Your task to perform on an android device: What's on my calendar tomorrow? Image 0: 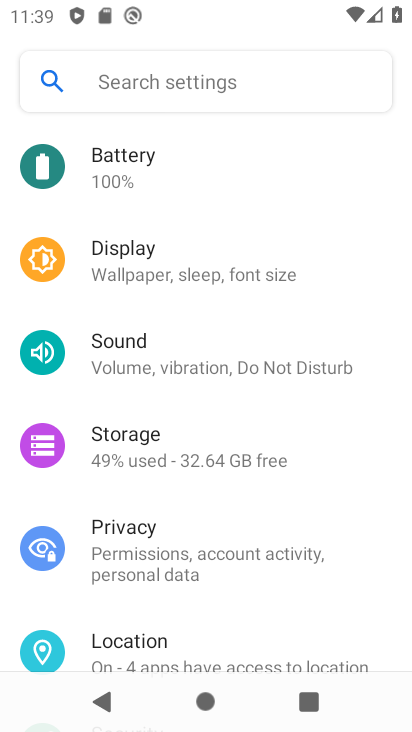
Step 0: press home button
Your task to perform on an android device: What's on my calendar tomorrow? Image 1: 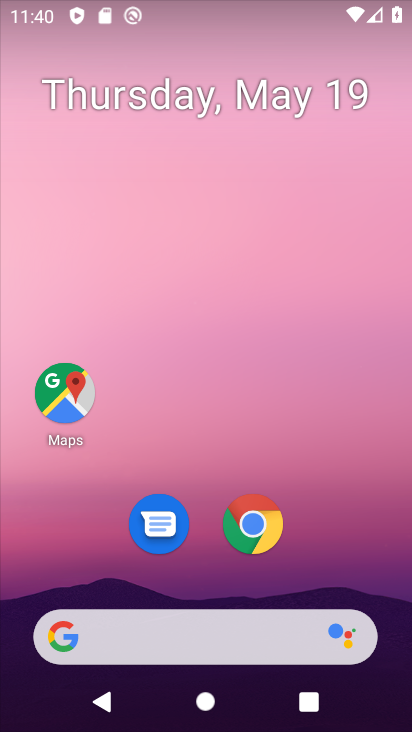
Step 1: click (201, 647)
Your task to perform on an android device: What's on my calendar tomorrow? Image 2: 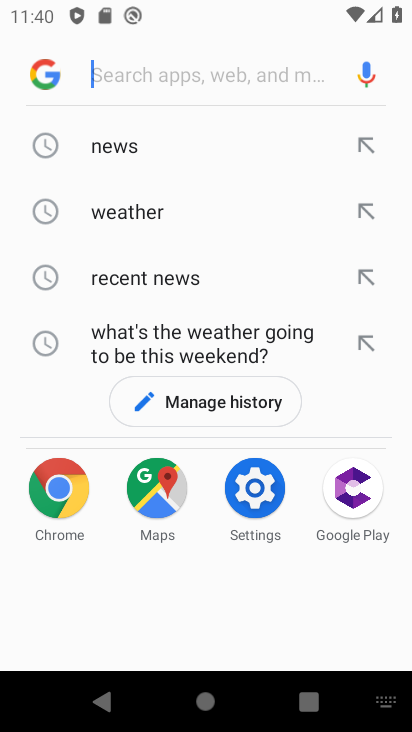
Step 2: press home button
Your task to perform on an android device: What's on my calendar tomorrow? Image 3: 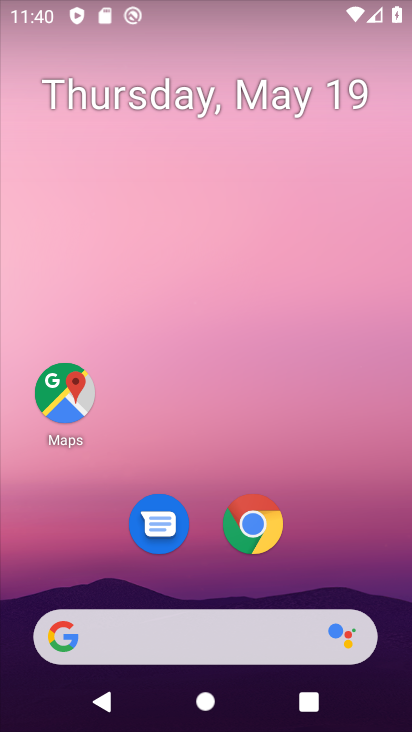
Step 3: drag from (229, 445) to (174, 48)
Your task to perform on an android device: What's on my calendar tomorrow? Image 4: 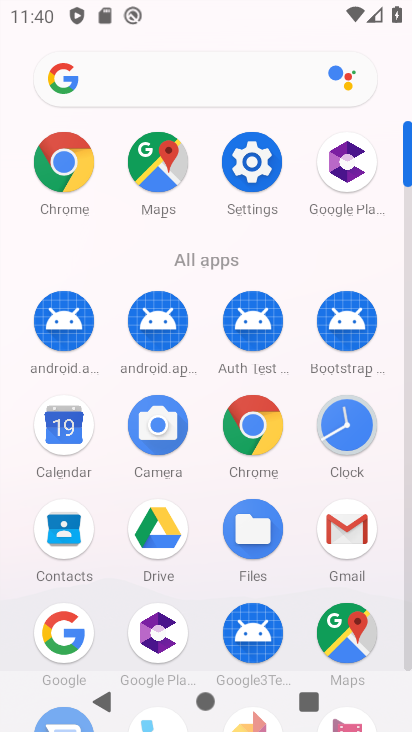
Step 4: click (64, 419)
Your task to perform on an android device: What's on my calendar tomorrow? Image 5: 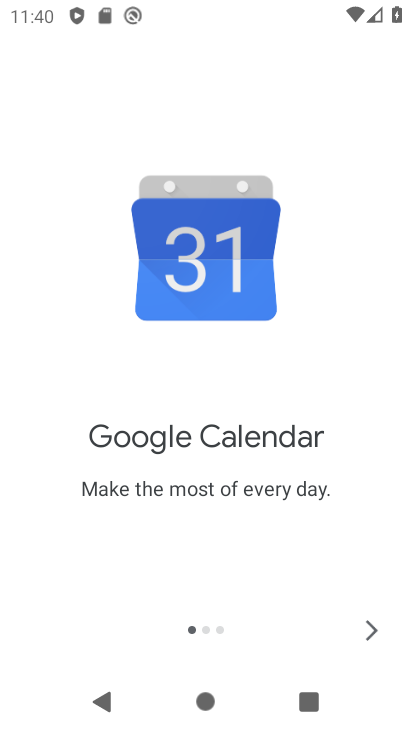
Step 5: click (369, 621)
Your task to perform on an android device: What's on my calendar tomorrow? Image 6: 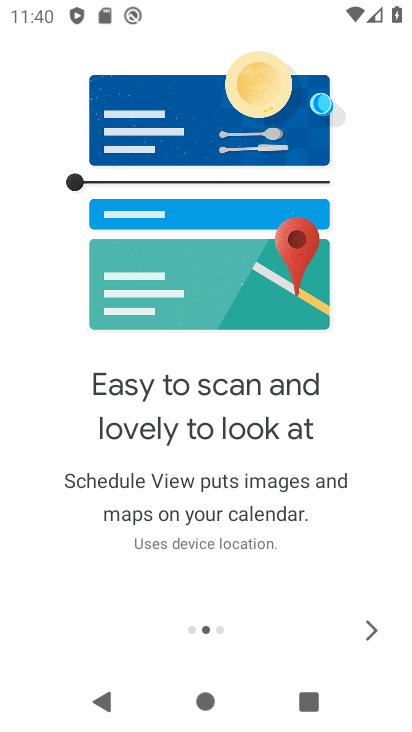
Step 6: click (369, 626)
Your task to perform on an android device: What's on my calendar tomorrow? Image 7: 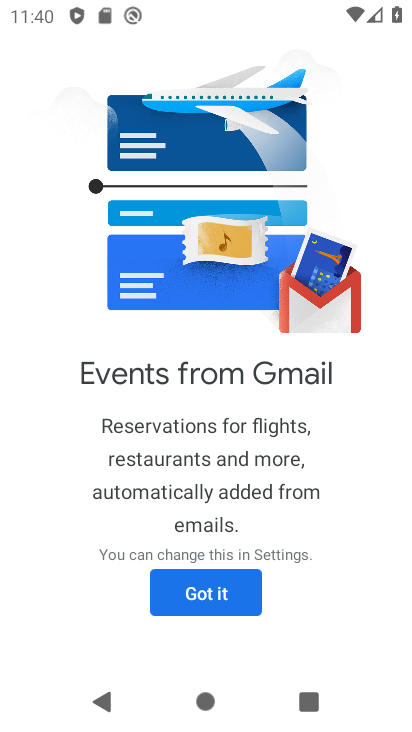
Step 7: click (232, 599)
Your task to perform on an android device: What's on my calendar tomorrow? Image 8: 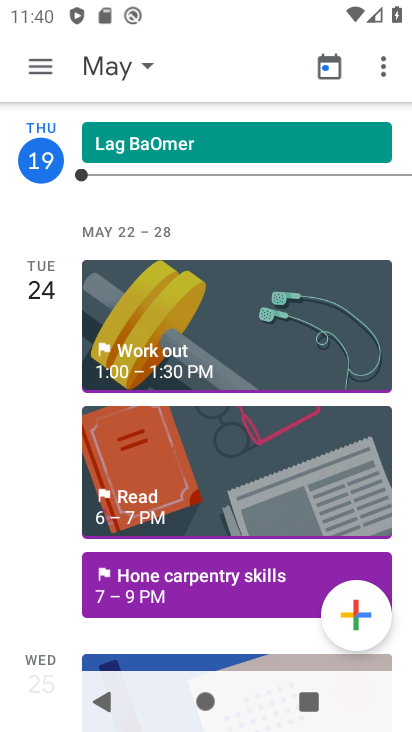
Step 8: click (43, 70)
Your task to perform on an android device: What's on my calendar tomorrow? Image 9: 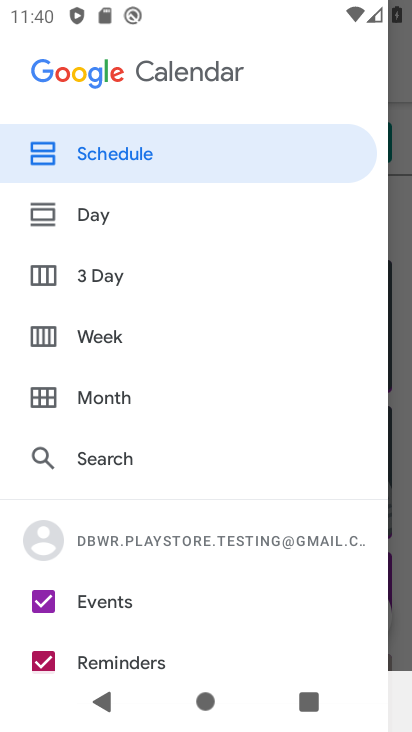
Step 9: click (72, 324)
Your task to perform on an android device: What's on my calendar tomorrow? Image 10: 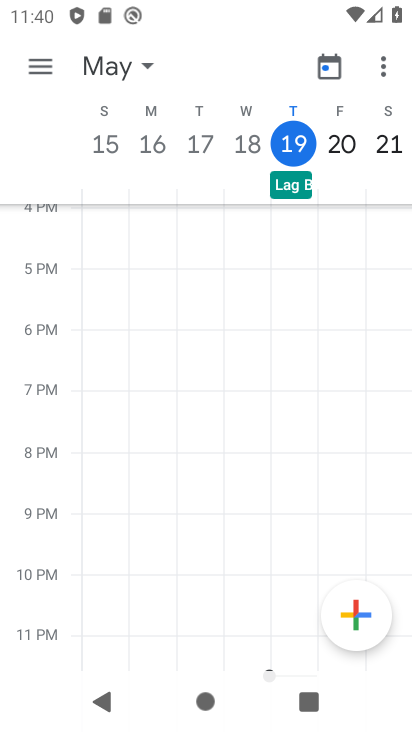
Step 10: click (333, 133)
Your task to perform on an android device: What's on my calendar tomorrow? Image 11: 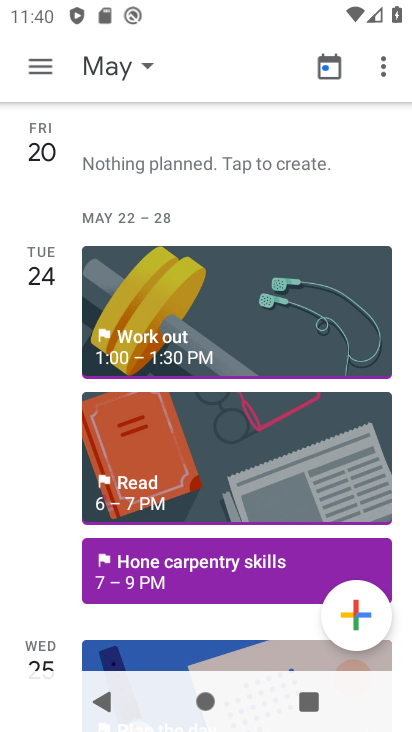
Step 11: task complete